Your task to perform on an android device: Go to ESPN.com Image 0: 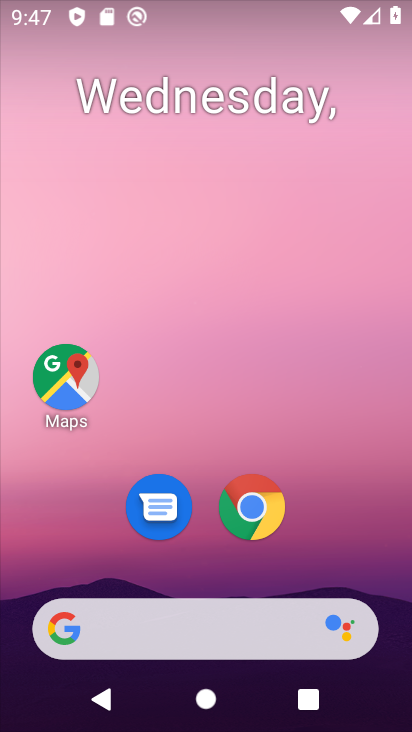
Step 0: drag from (224, 676) to (102, 261)
Your task to perform on an android device: Go to ESPN.com Image 1: 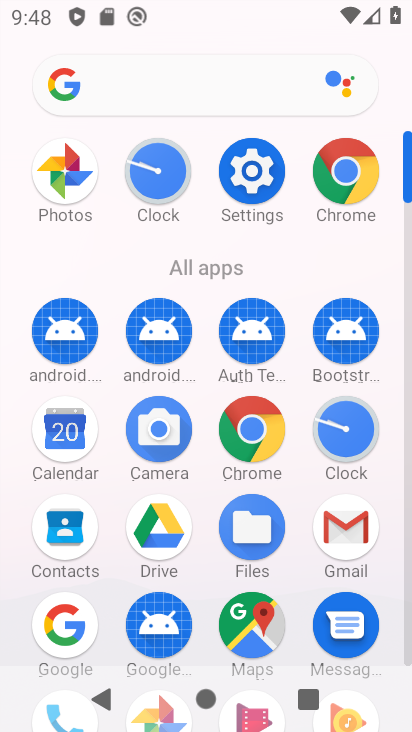
Step 1: click (337, 167)
Your task to perform on an android device: Go to ESPN.com Image 2: 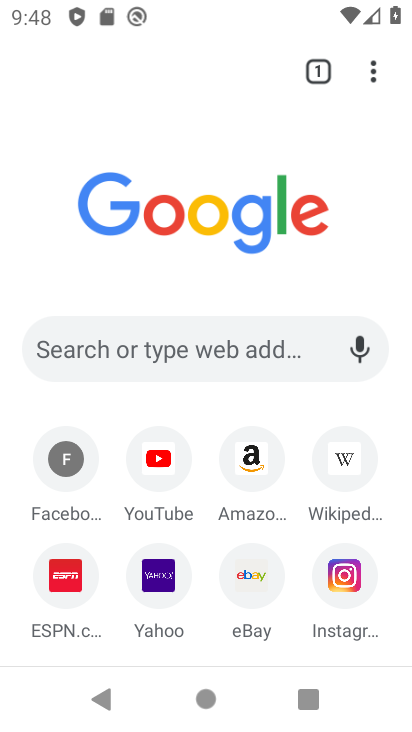
Step 2: click (56, 589)
Your task to perform on an android device: Go to ESPN.com Image 3: 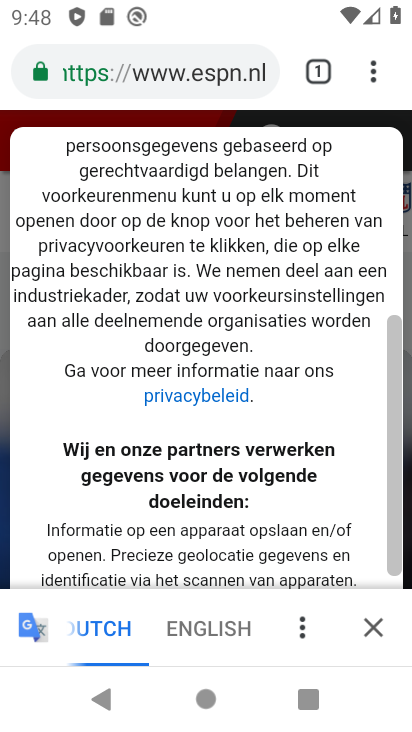
Step 3: click (369, 619)
Your task to perform on an android device: Go to ESPN.com Image 4: 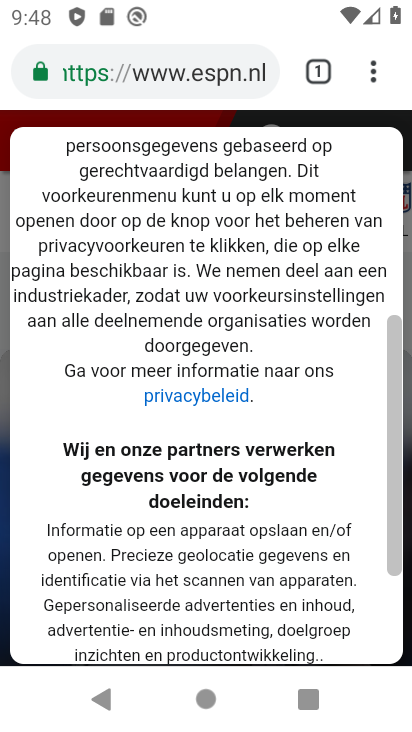
Step 4: drag from (282, 536) to (331, 232)
Your task to perform on an android device: Go to ESPN.com Image 5: 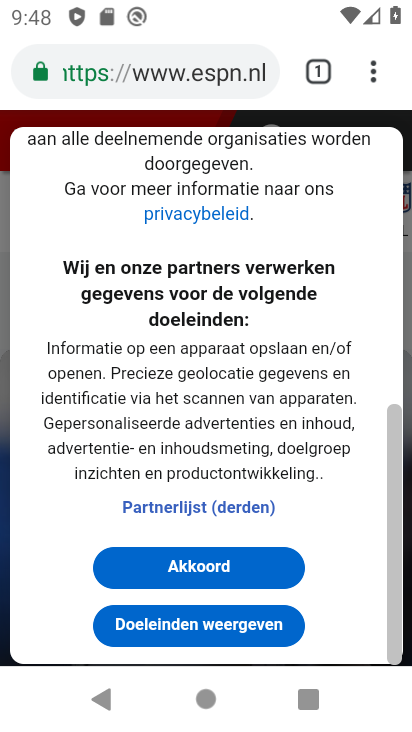
Step 5: click (204, 565)
Your task to perform on an android device: Go to ESPN.com Image 6: 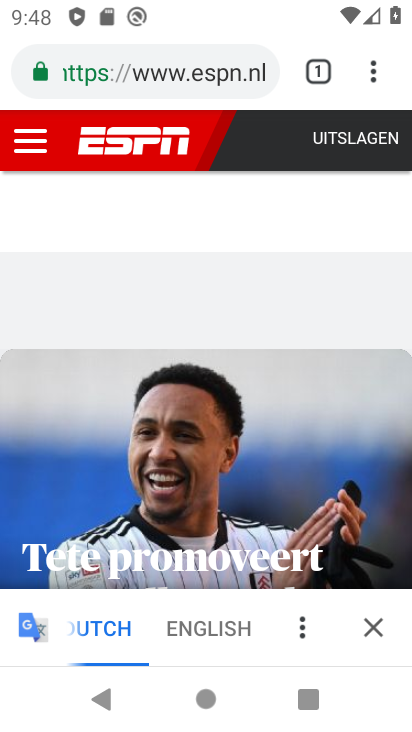
Step 6: task complete